Your task to perform on an android device: visit the assistant section in the google photos Image 0: 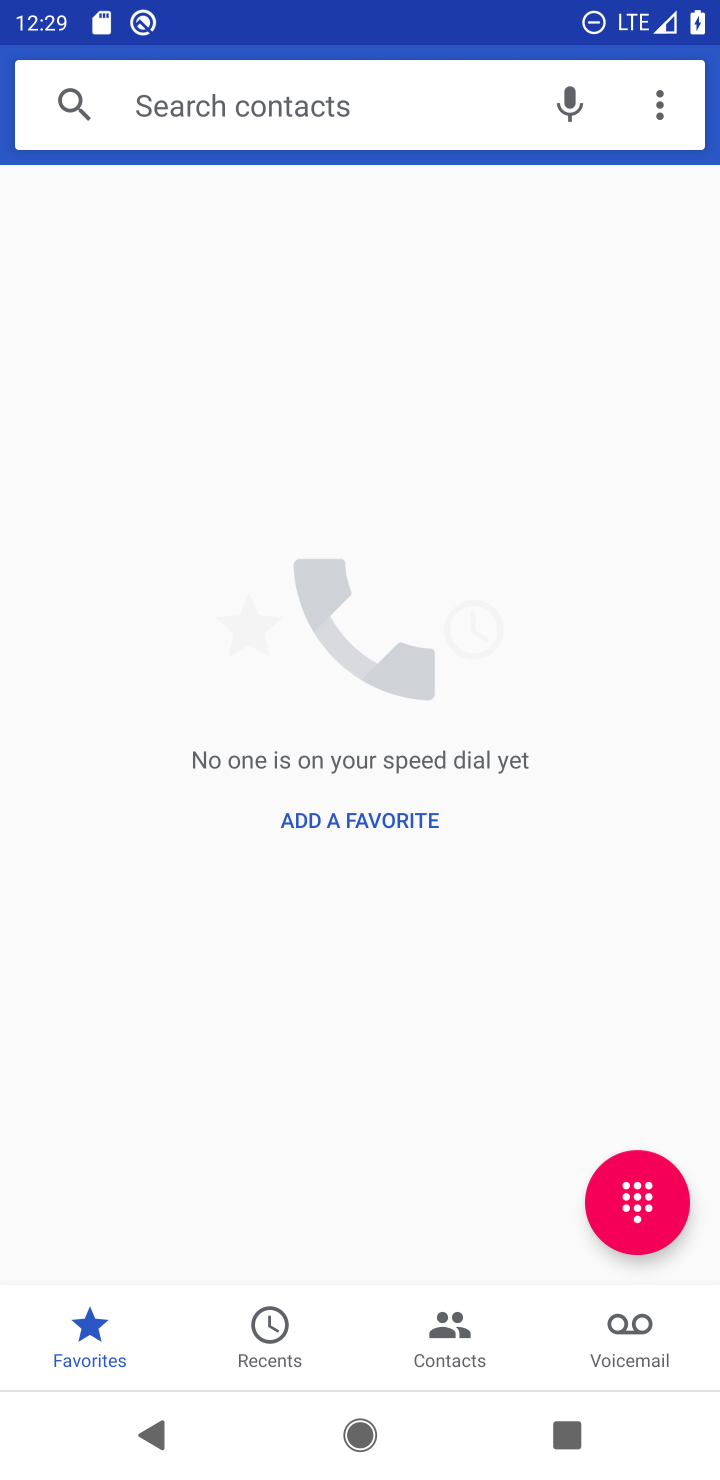
Step 0: press home button
Your task to perform on an android device: visit the assistant section in the google photos Image 1: 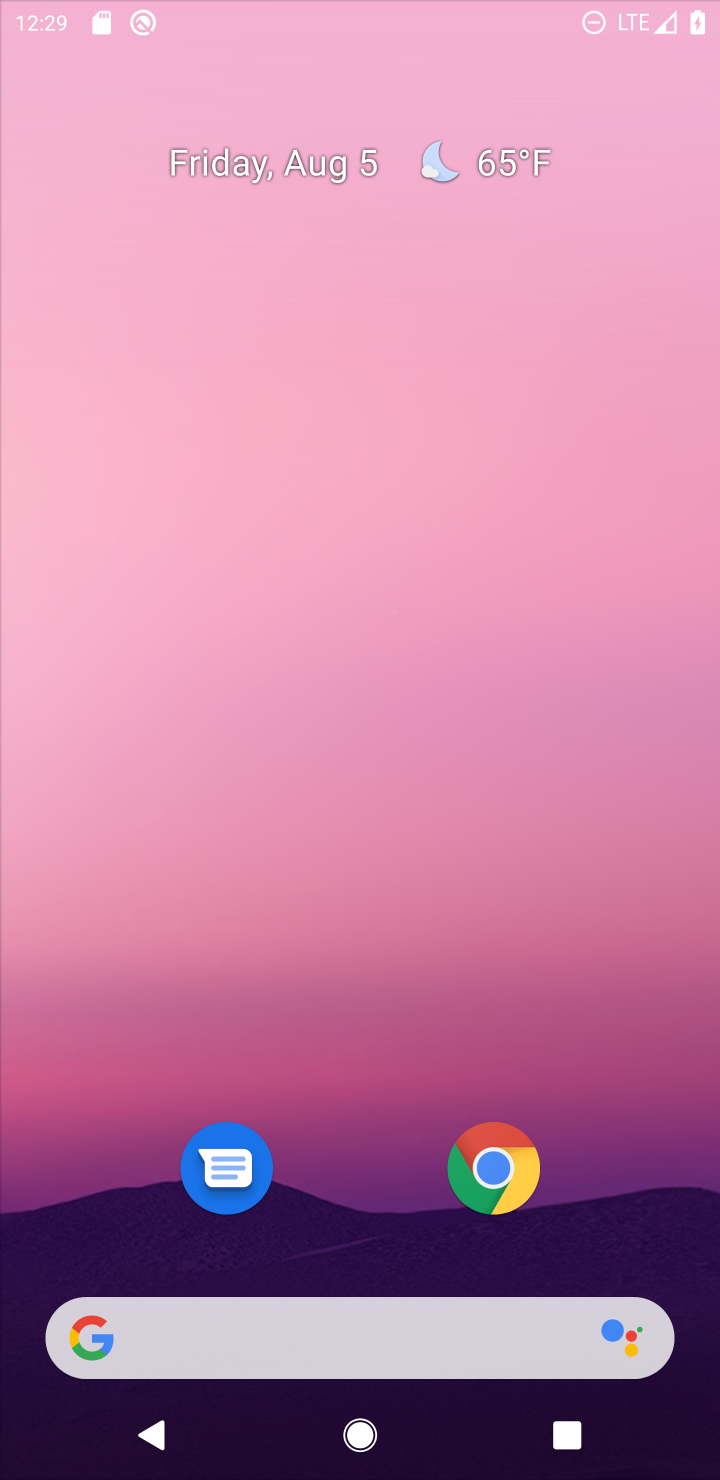
Step 1: drag from (675, 1038) to (421, 126)
Your task to perform on an android device: visit the assistant section in the google photos Image 2: 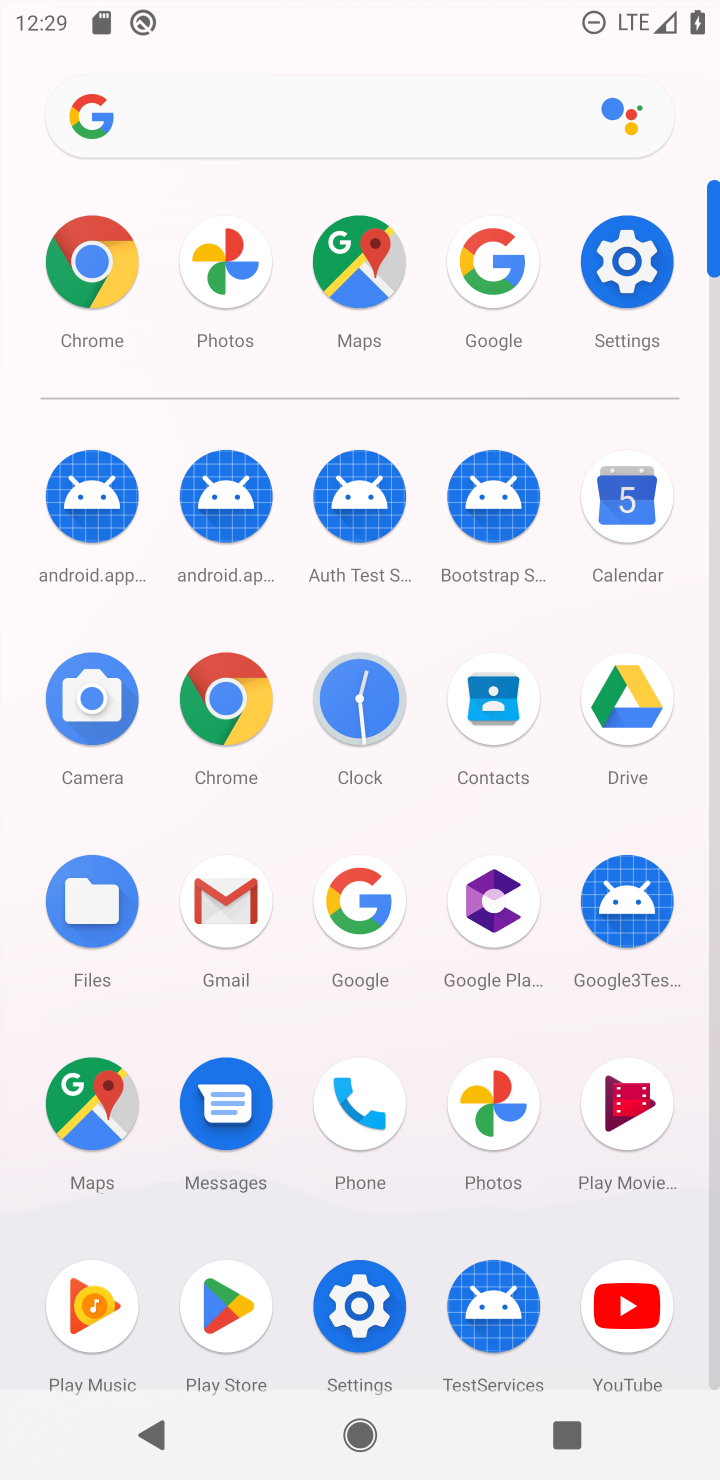
Step 2: click (464, 1110)
Your task to perform on an android device: visit the assistant section in the google photos Image 3: 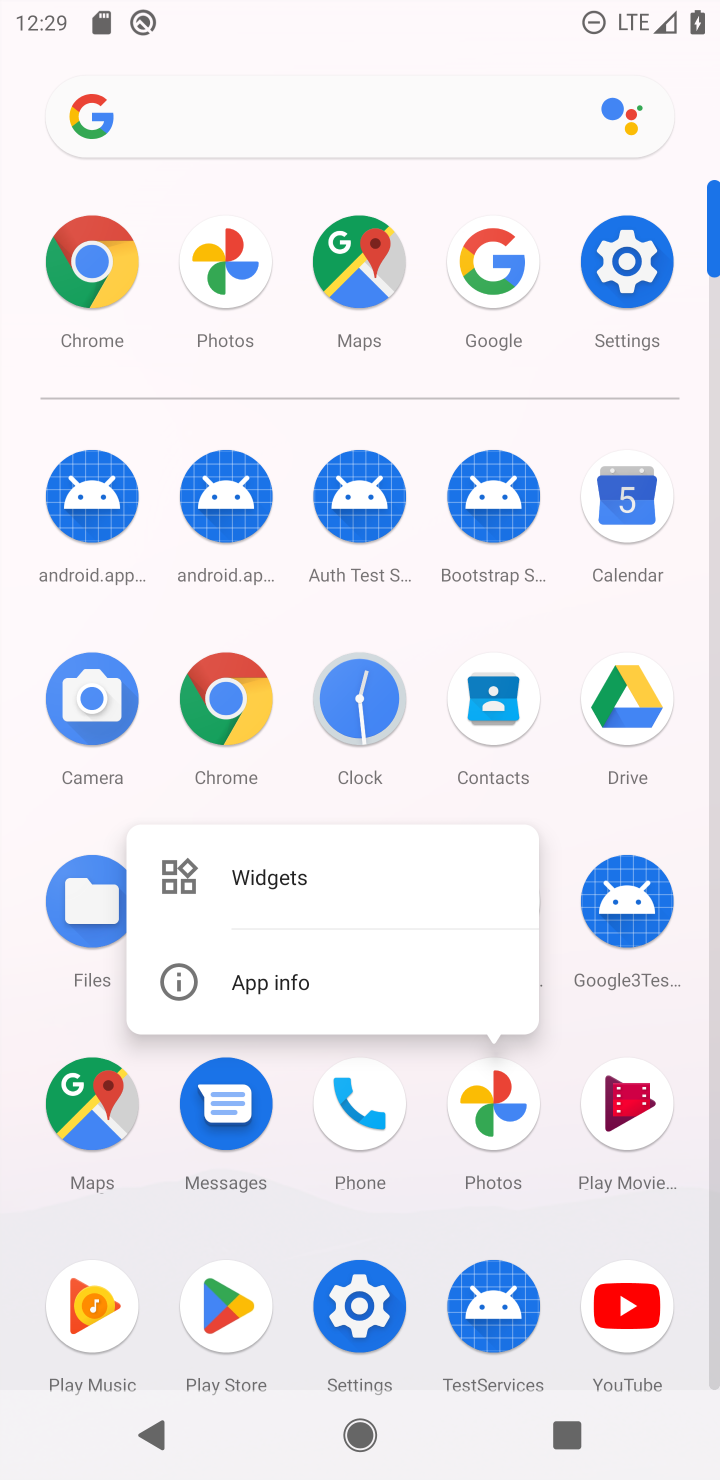
Step 3: click (464, 1110)
Your task to perform on an android device: visit the assistant section in the google photos Image 4: 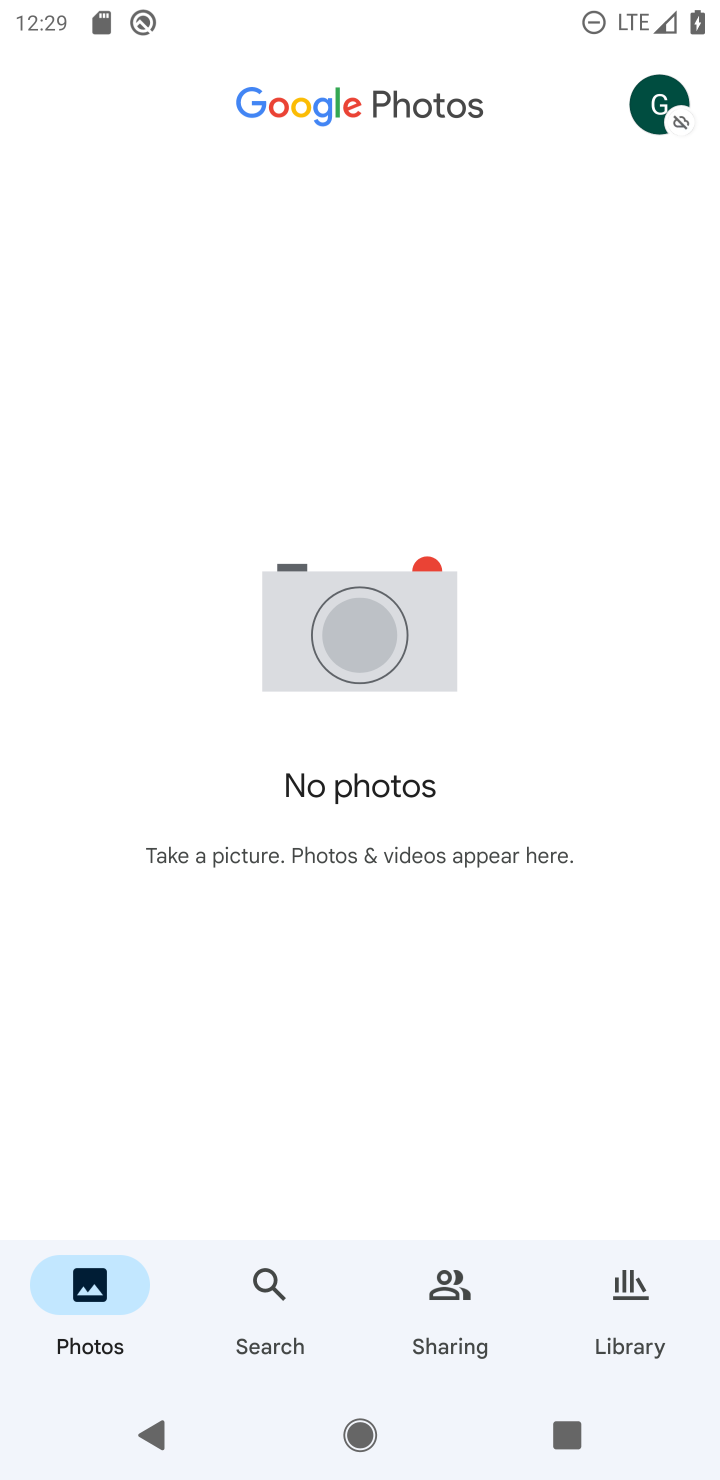
Step 4: task complete